Your task to perform on an android device: Search for sushi restaurants on Maps Image 0: 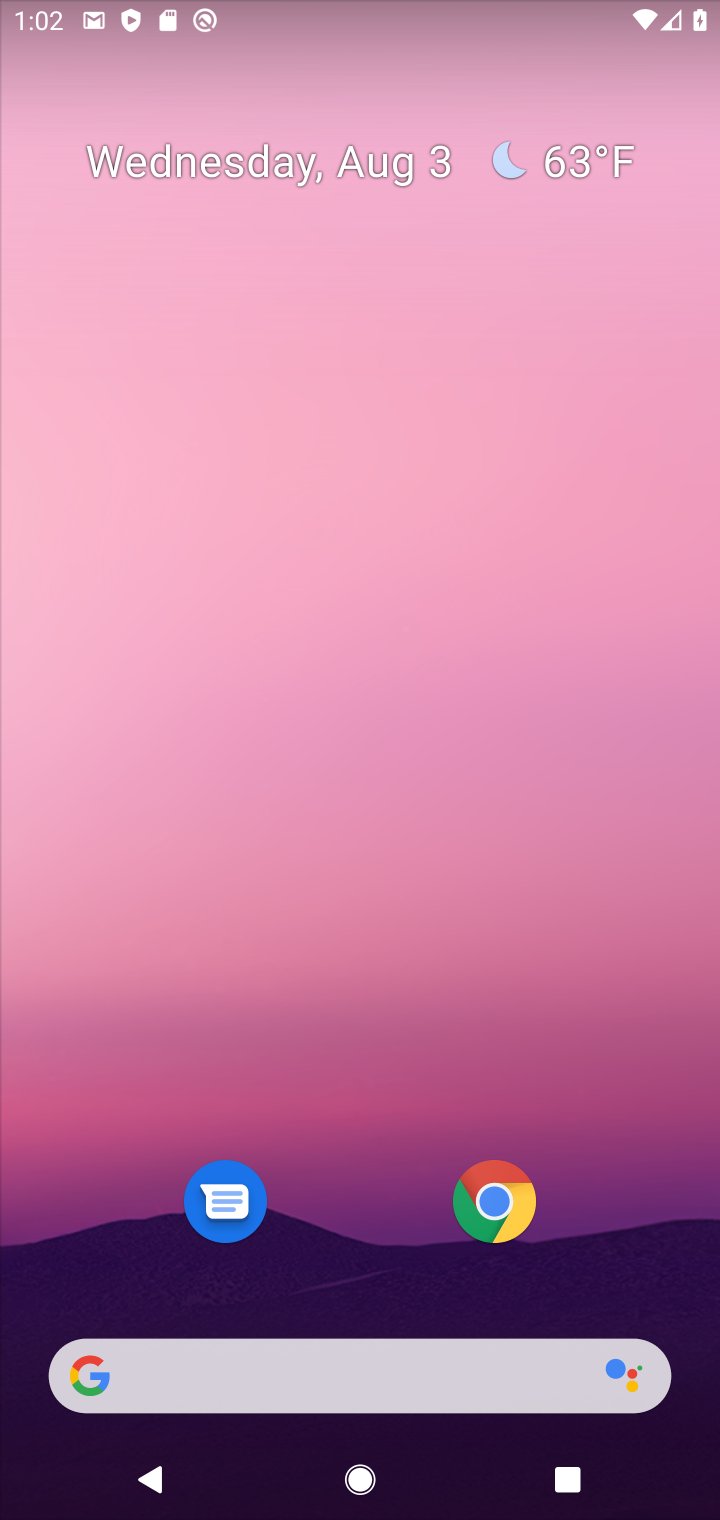
Step 0: drag from (445, 1289) to (528, 188)
Your task to perform on an android device: Search for sushi restaurants on Maps Image 1: 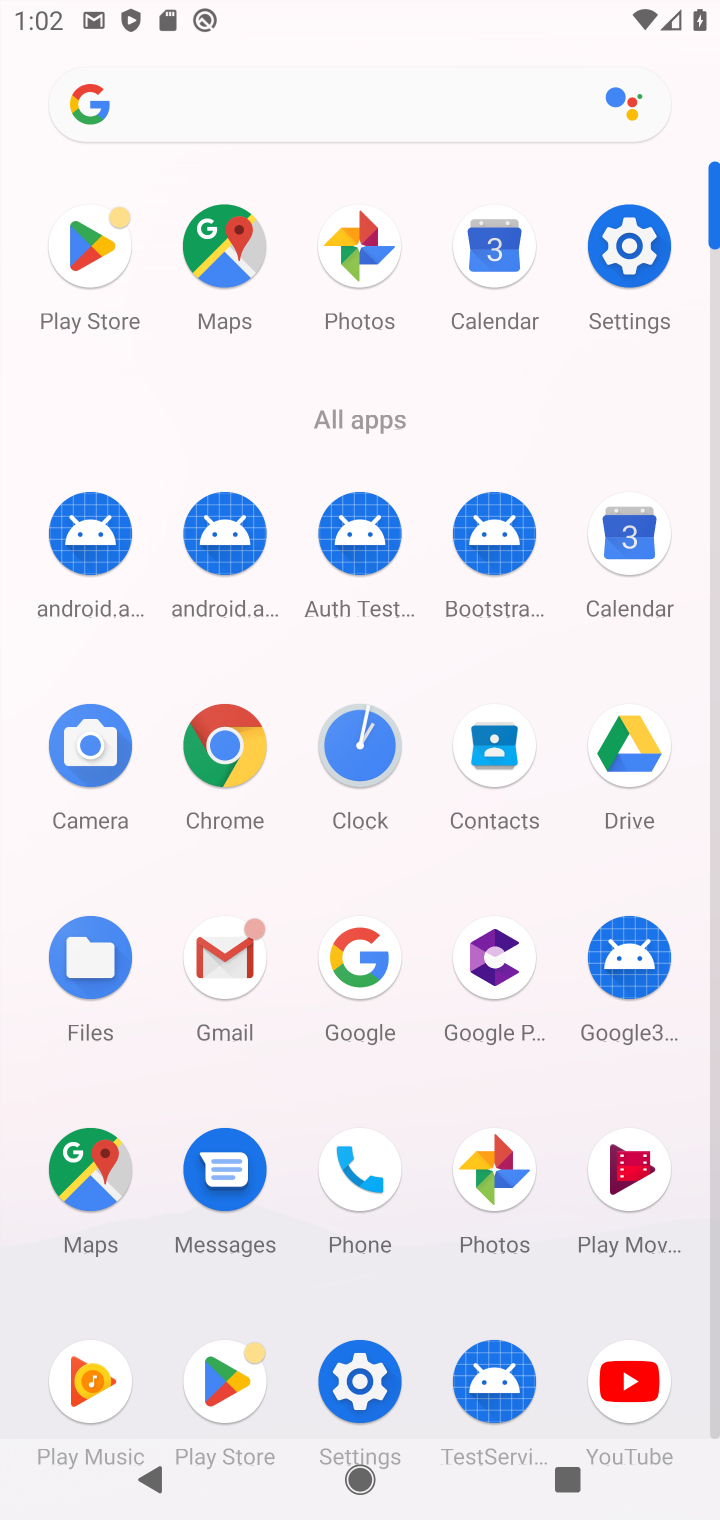
Step 1: click (104, 1175)
Your task to perform on an android device: Search for sushi restaurants on Maps Image 2: 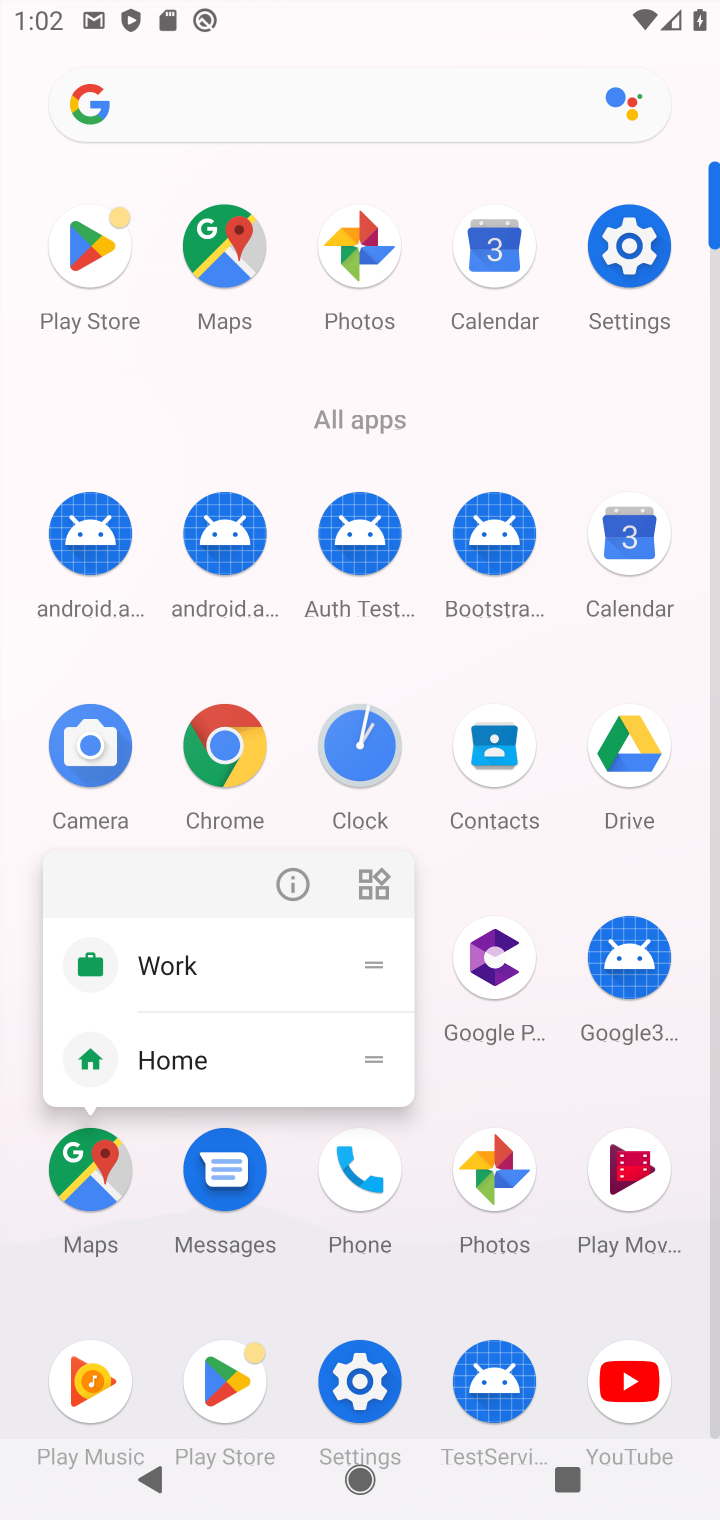
Step 2: click (87, 1161)
Your task to perform on an android device: Search for sushi restaurants on Maps Image 3: 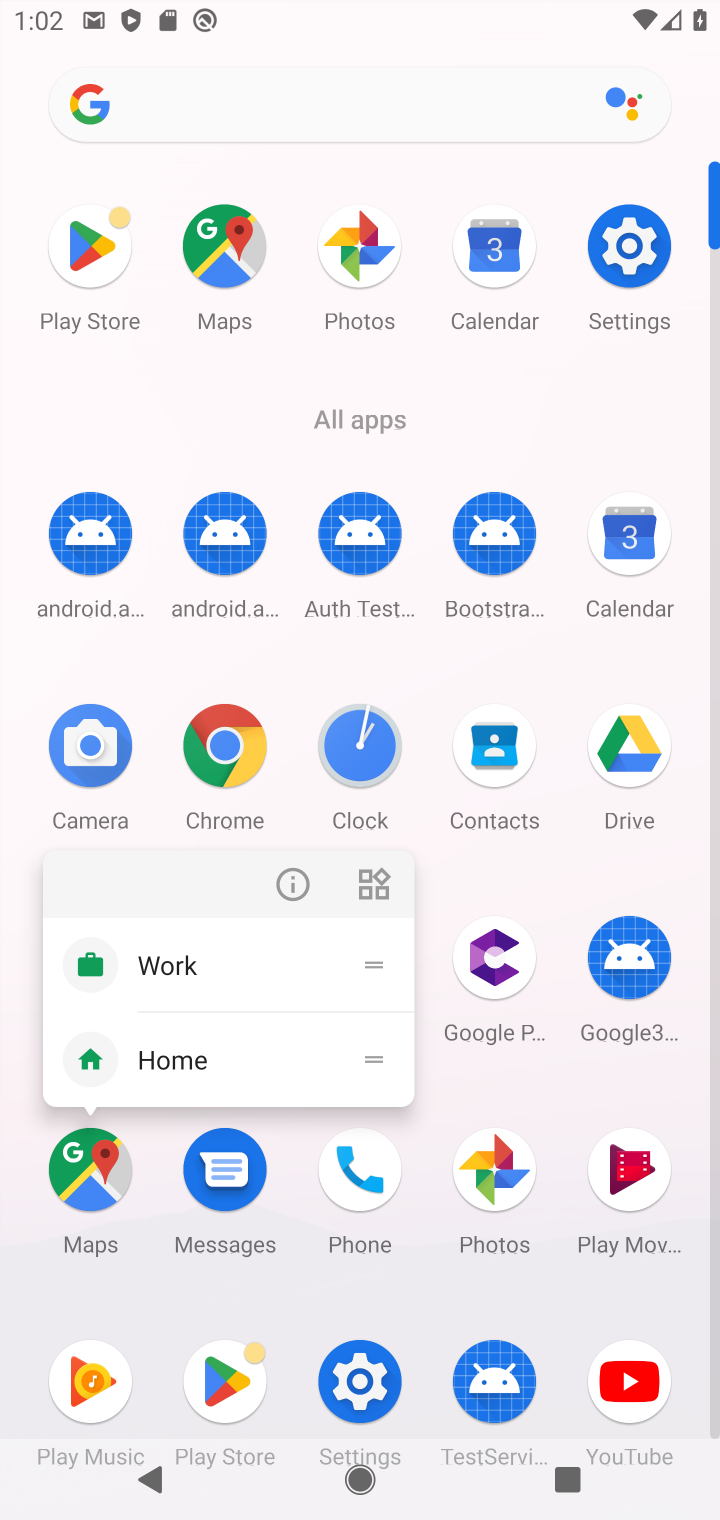
Step 3: click (87, 1169)
Your task to perform on an android device: Search for sushi restaurants on Maps Image 4: 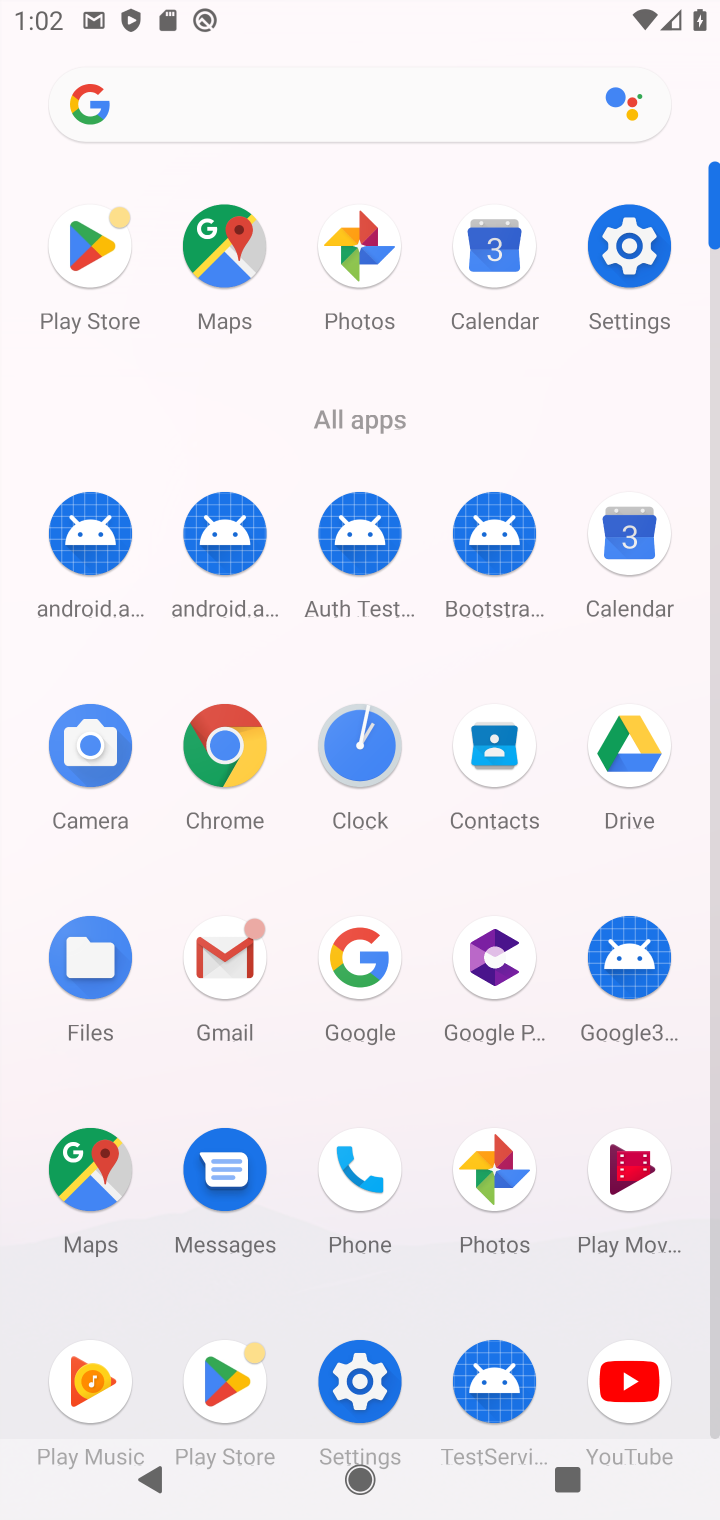
Step 4: click (87, 1169)
Your task to perform on an android device: Search for sushi restaurants on Maps Image 5: 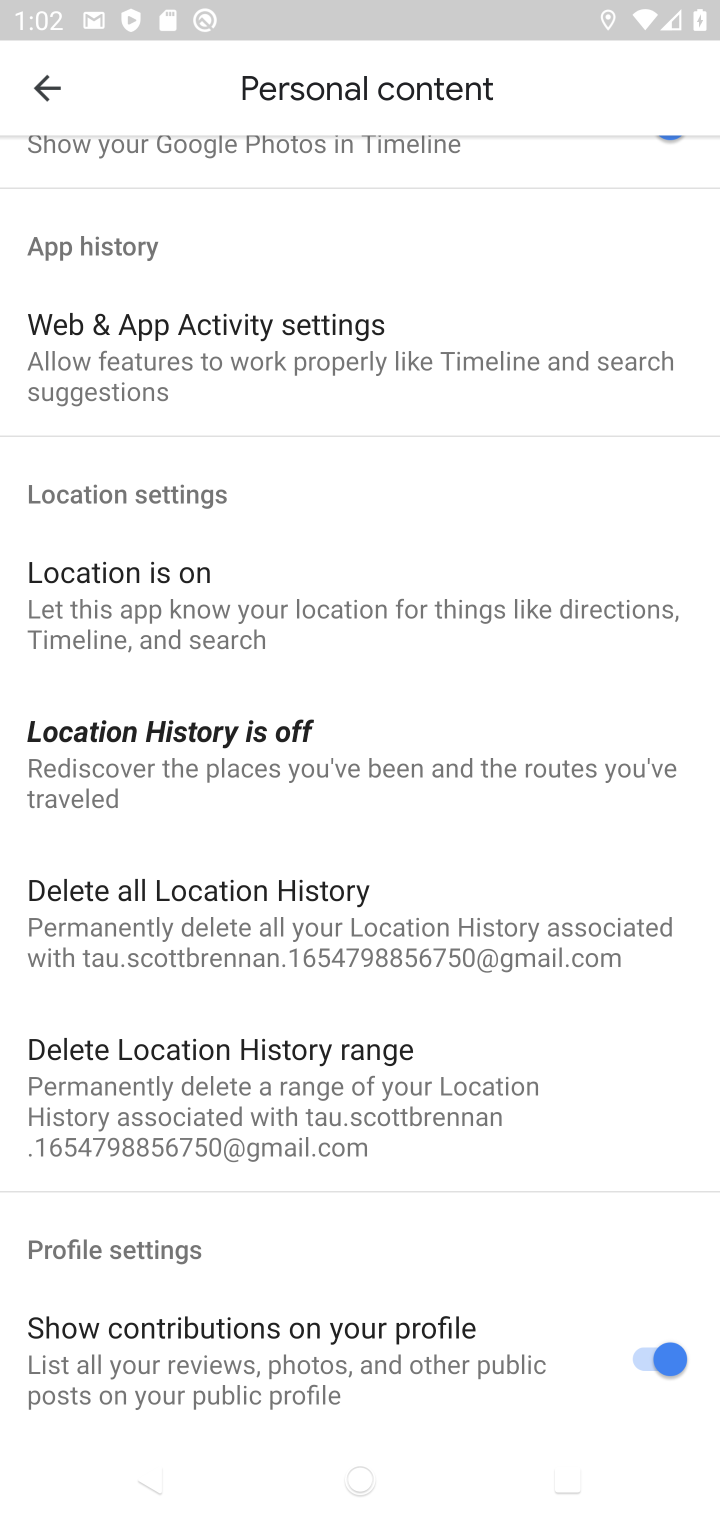
Step 5: click (59, 86)
Your task to perform on an android device: Search for sushi restaurants on Maps Image 6: 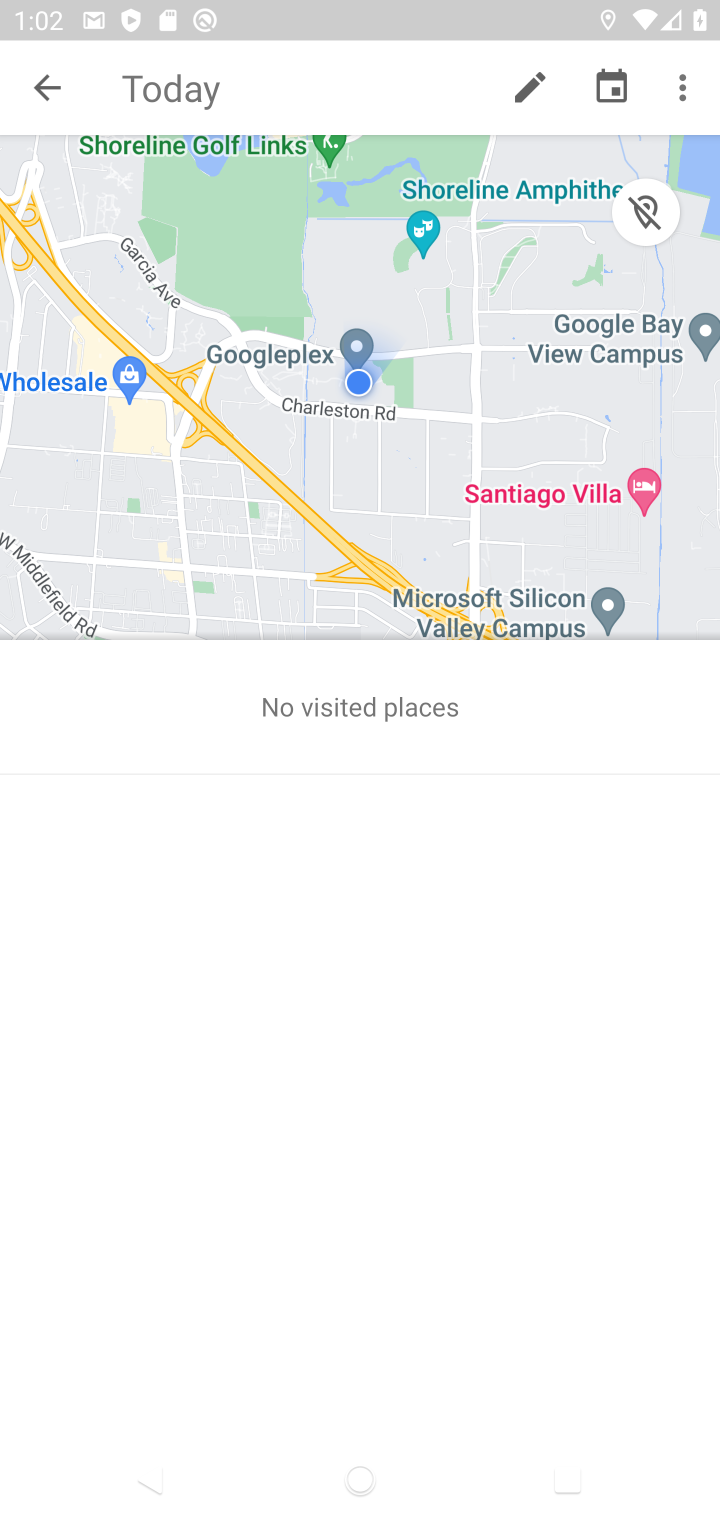
Step 6: click (59, 86)
Your task to perform on an android device: Search for sushi restaurants on Maps Image 7: 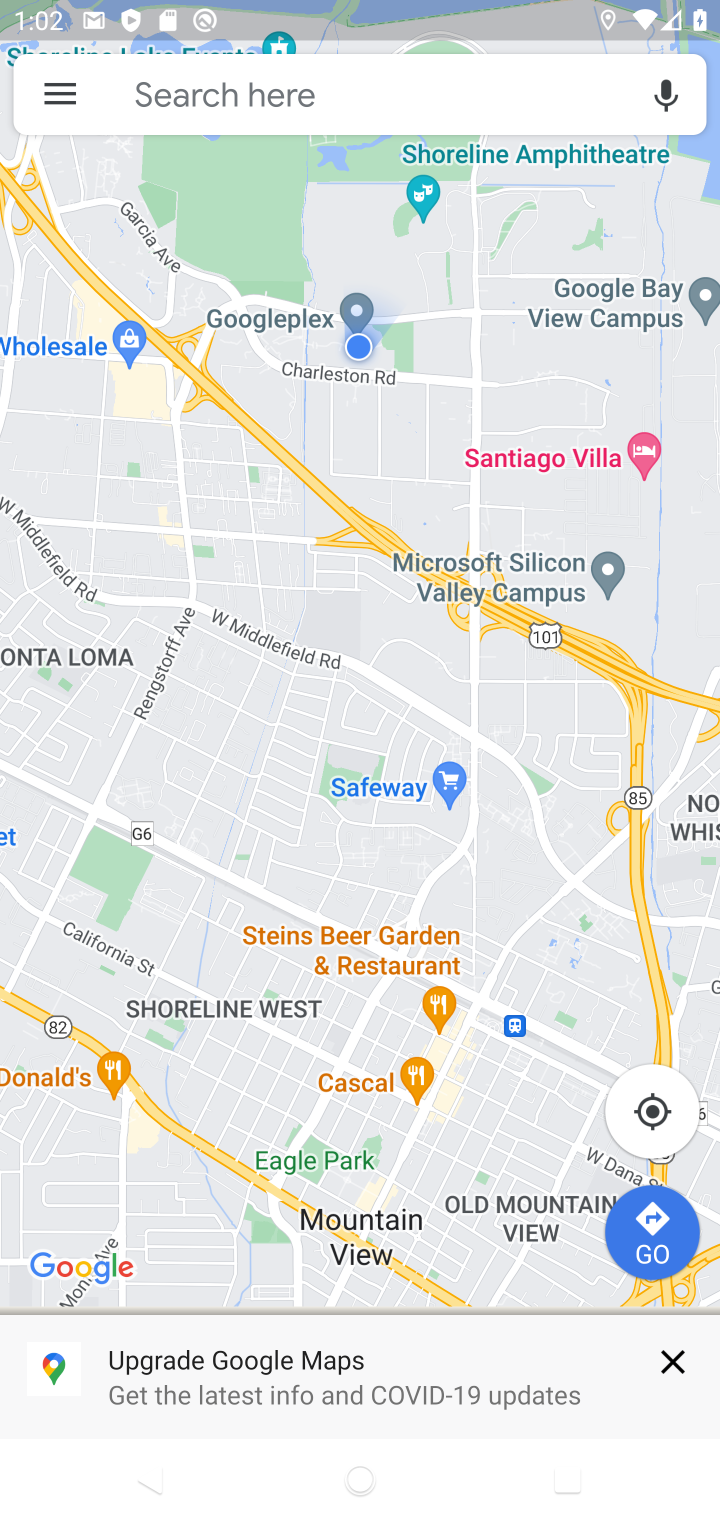
Step 7: click (261, 72)
Your task to perform on an android device: Search for sushi restaurants on Maps Image 8: 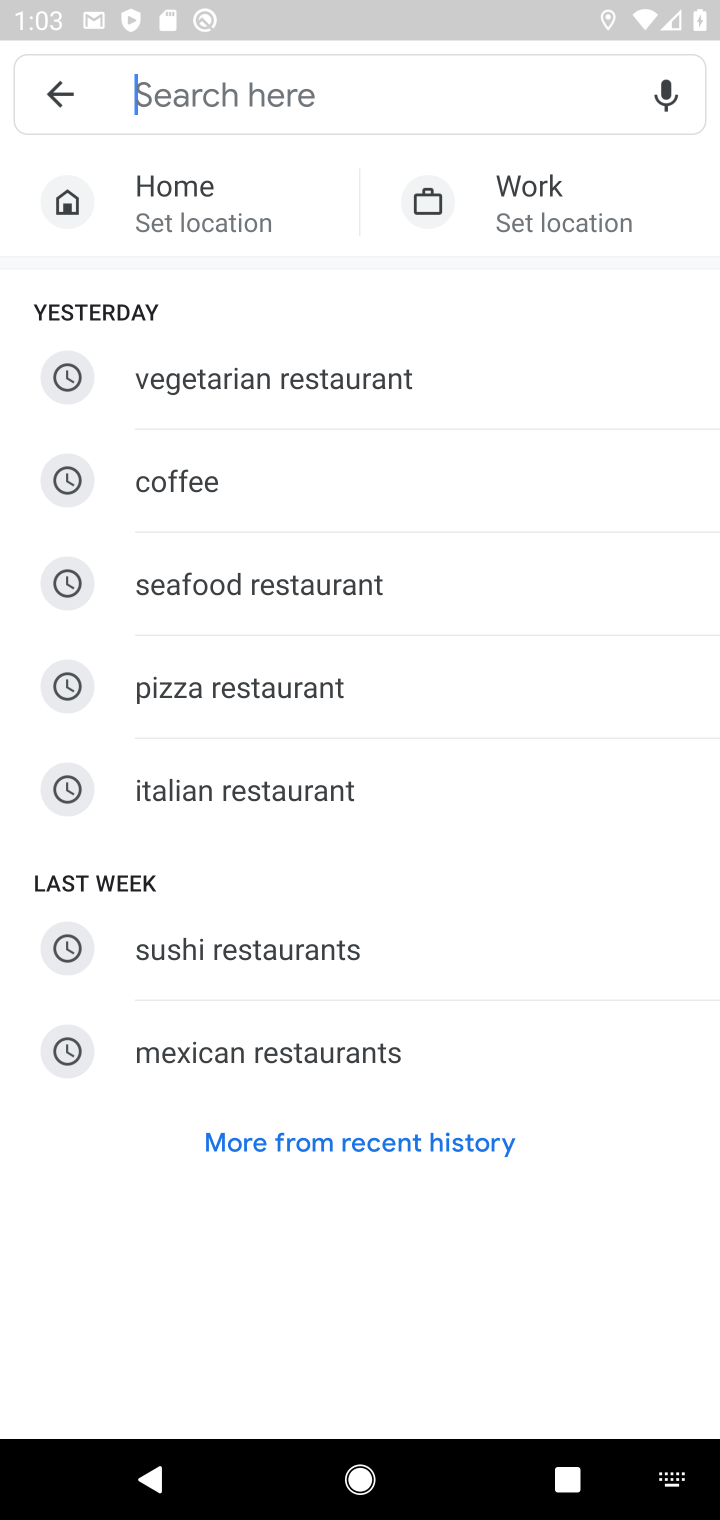
Step 8: click (259, 955)
Your task to perform on an android device: Search for sushi restaurants on Maps Image 9: 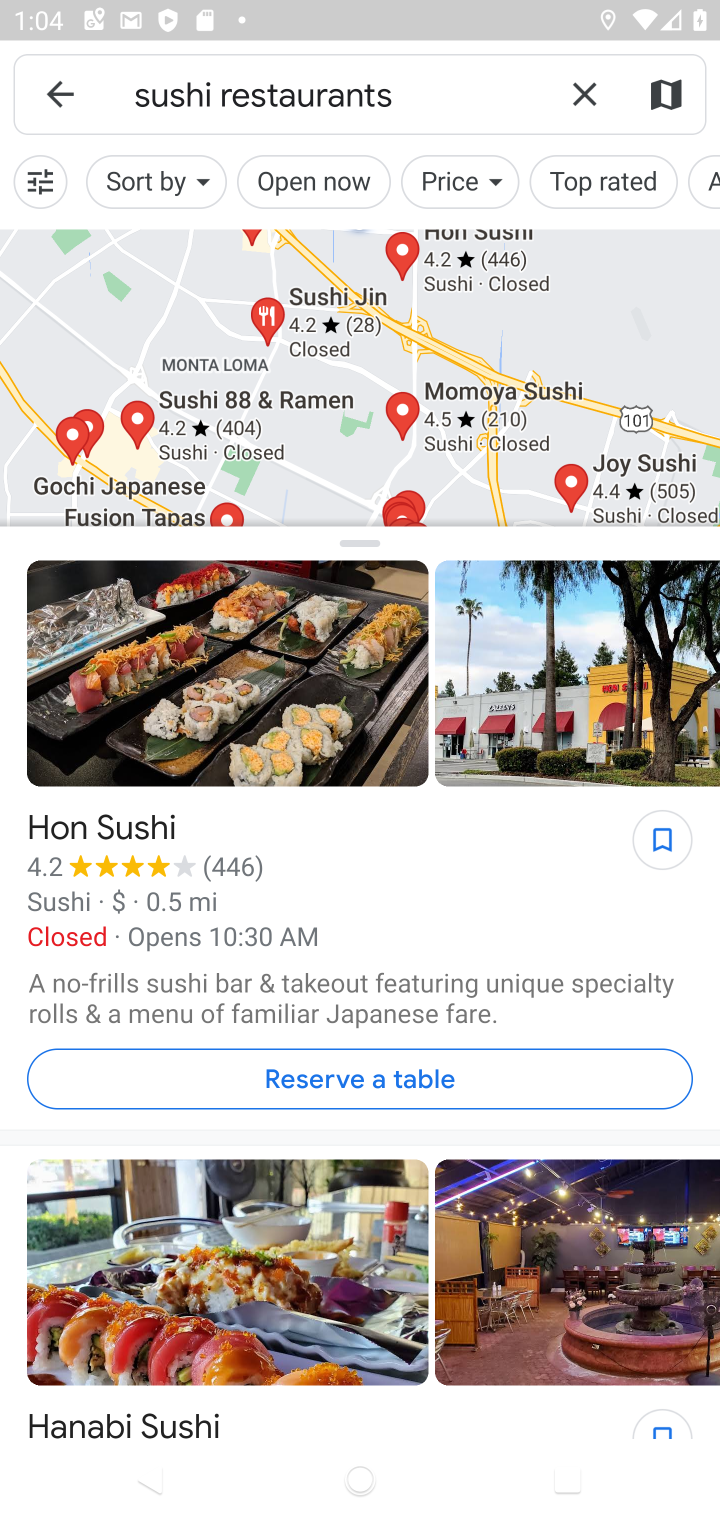
Step 9: task complete